Your task to perform on an android device: check out phone information Image 0: 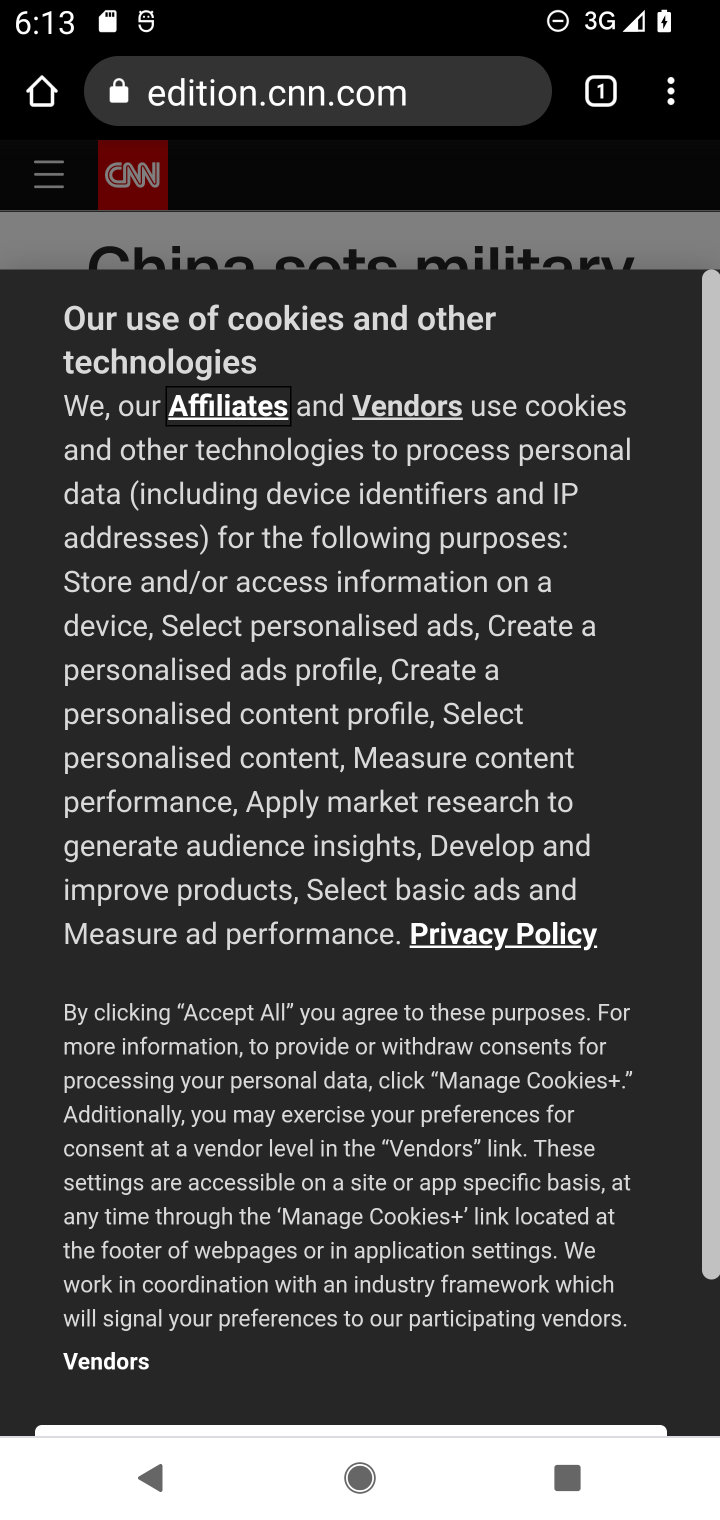
Step 0: press home button
Your task to perform on an android device: check out phone information Image 1: 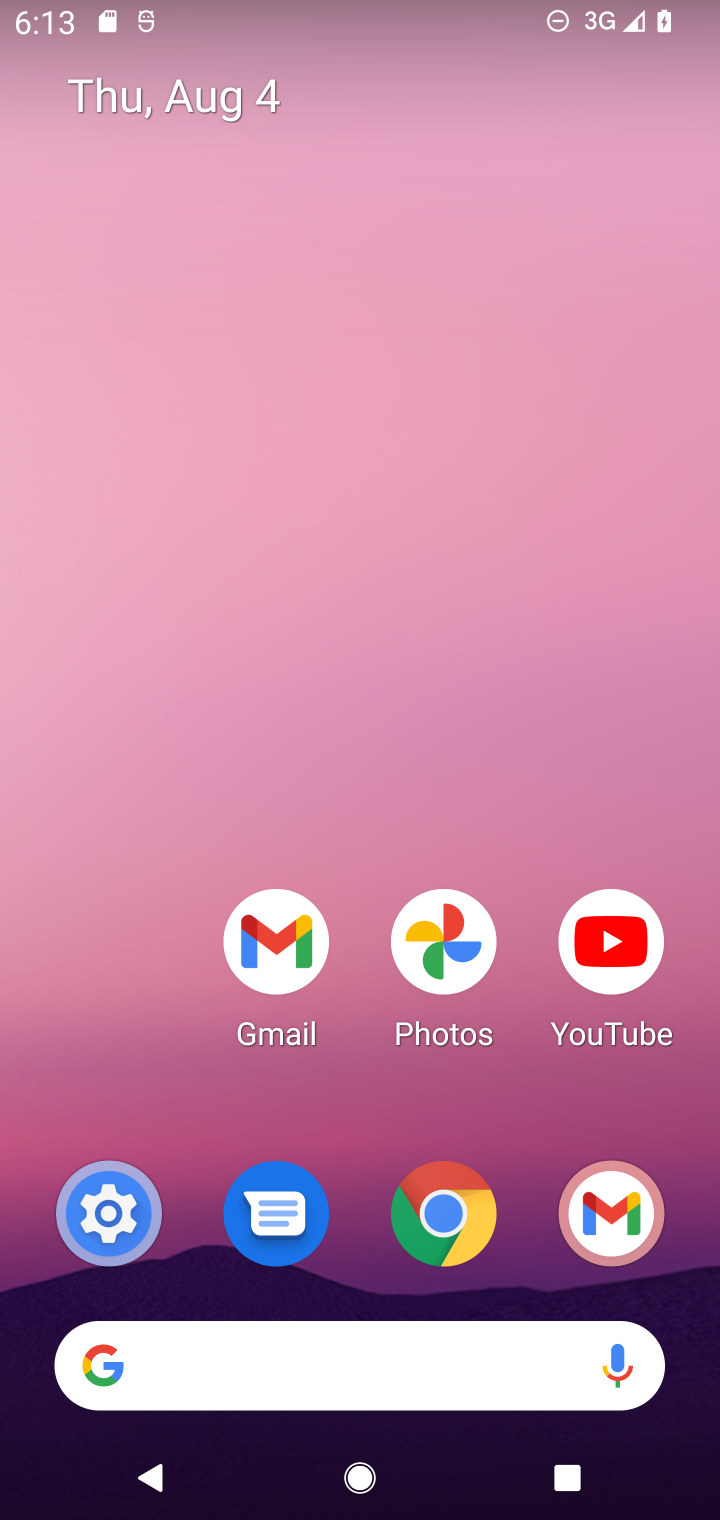
Step 1: drag from (180, 1141) to (249, 362)
Your task to perform on an android device: check out phone information Image 2: 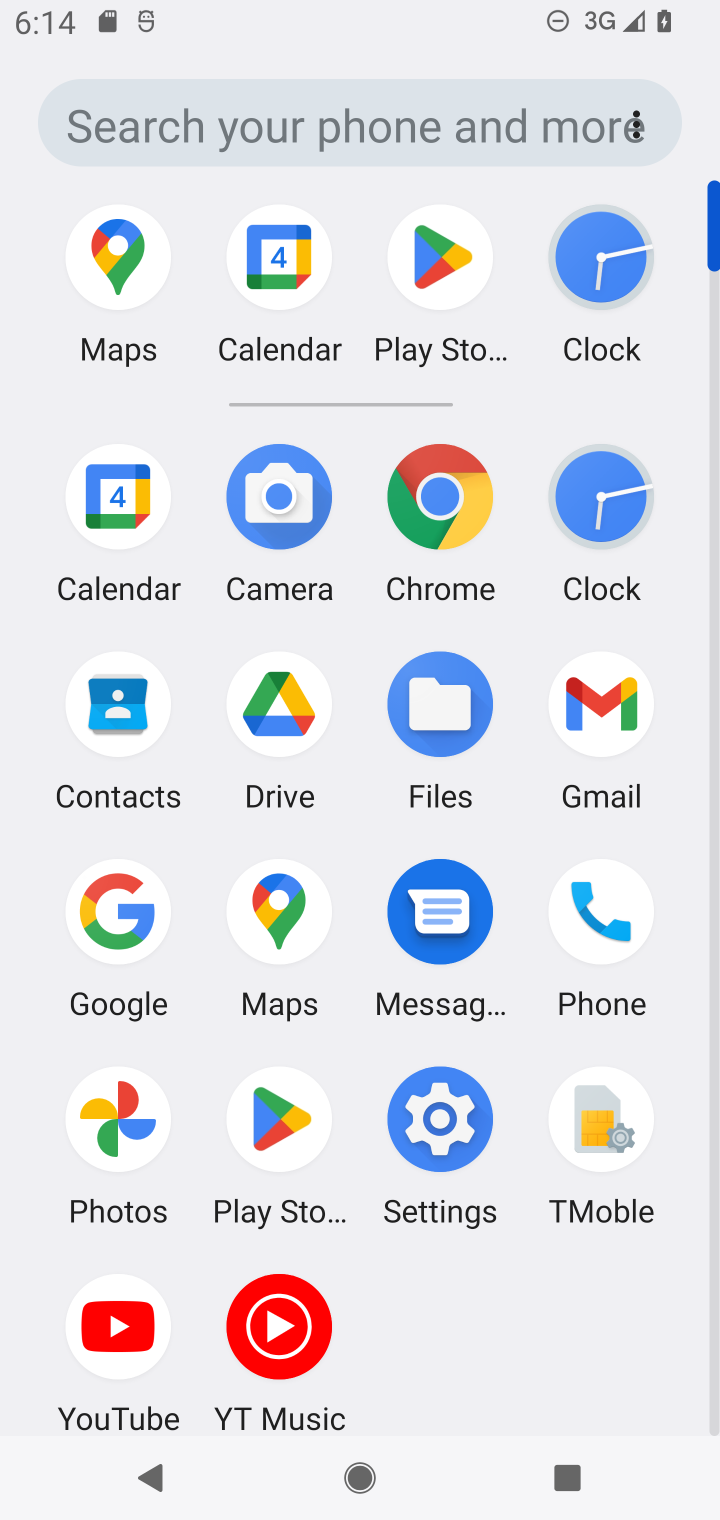
Step 2: click (624, 935)
Your task to perform on an android device: check out phone information Image 3: 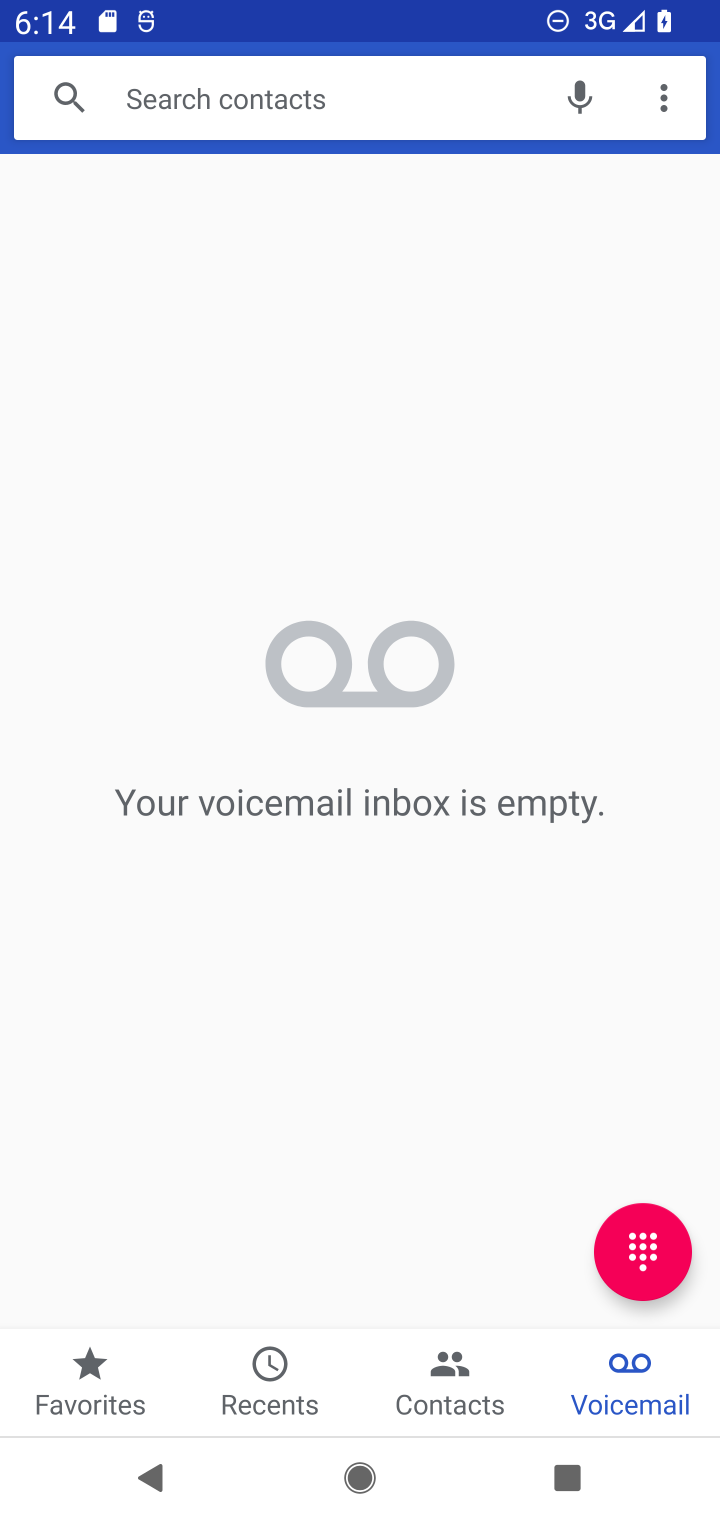
Step 3: task complete